Your task to perform on an android device: Open Chrome and go to settings Image 0: 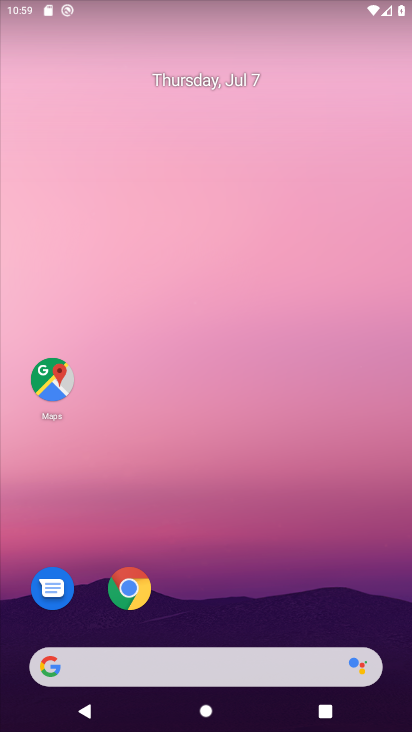
Step 0: click (134, 597)
Your task to perform on an android device: Open Chrome and go to settings Image 1: 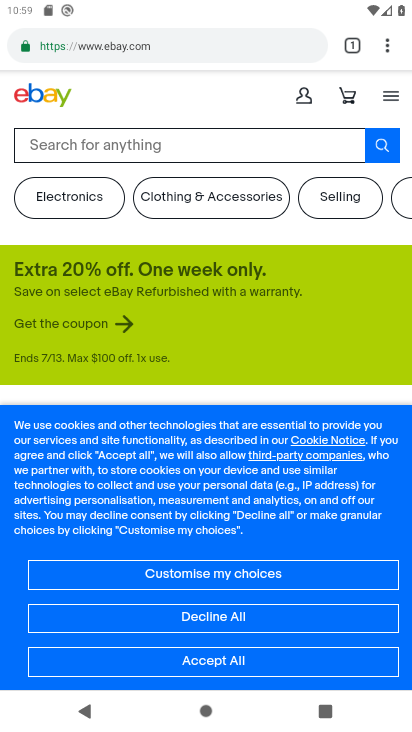
Step 1: task complete